Your task to perform on an android device: Clear the cart on target.com. Image 0: 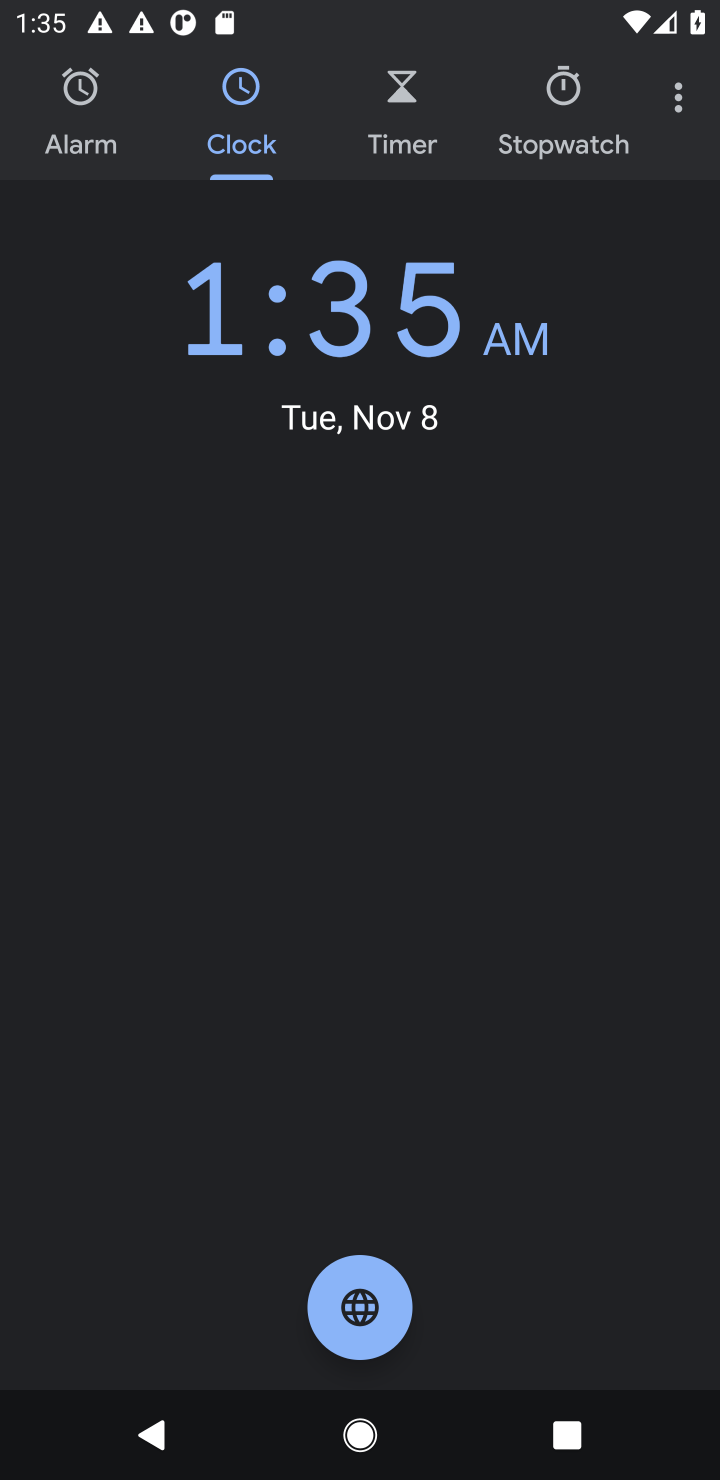
Step 0: press home button
Your task to perform on an android device: Clear the cart on target.com. Image 1: 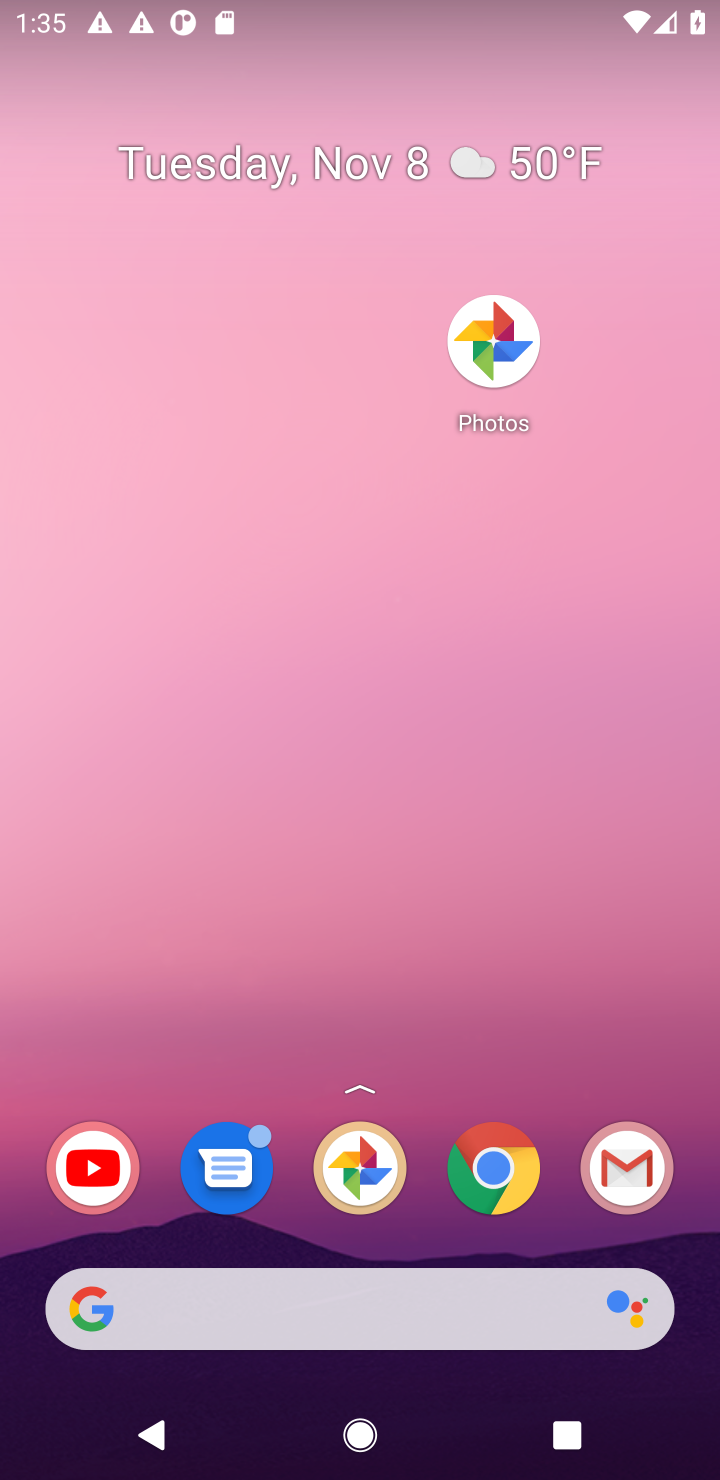
Step 1: drag from (462, 1153) to (412, 101)
Your task to perform on an android device: Clear the cart on target.com. Image 2: 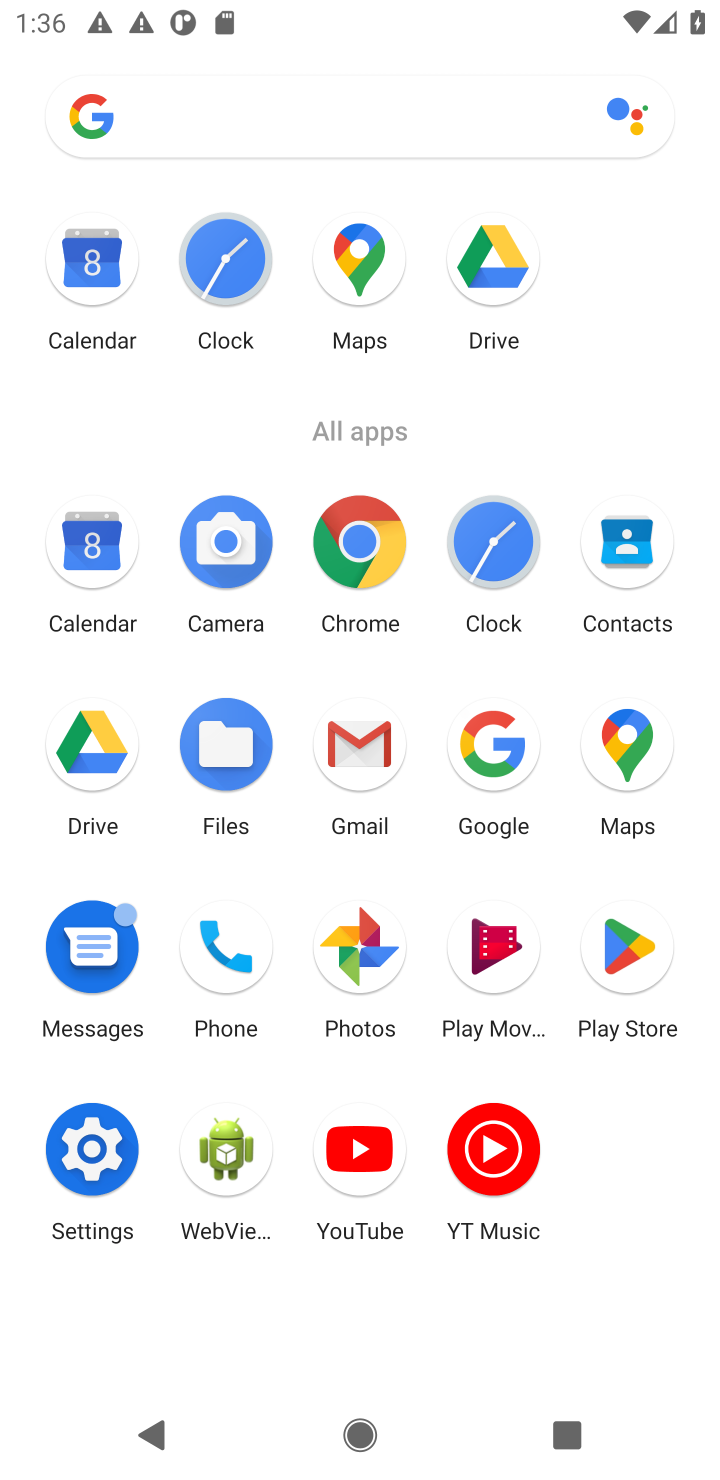
Step 2: click (358, 531)
Your task to perform on an android device: Clear the cart on target.com. Image 3: 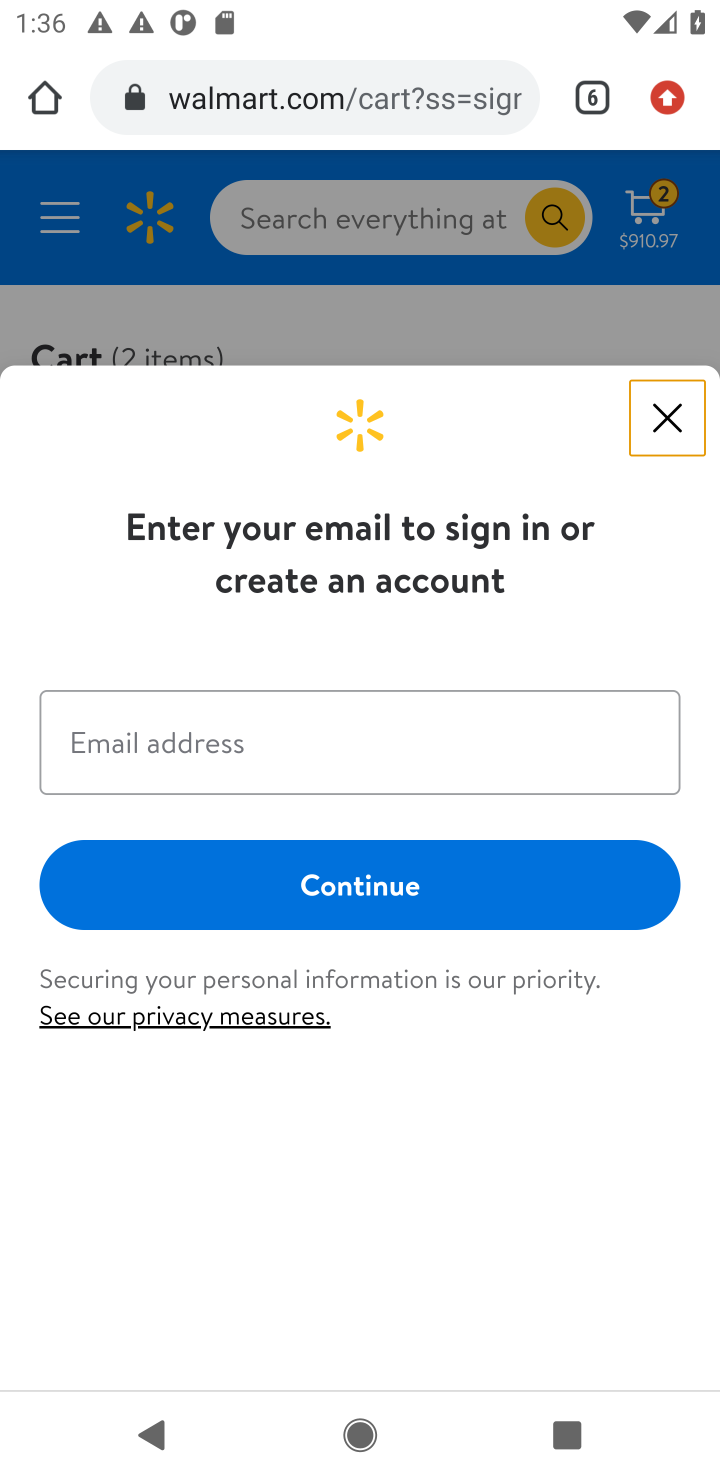
Step 3: click (395, 120)
Your task to perform on an android device: Clear the cart on target.com. Image 4: 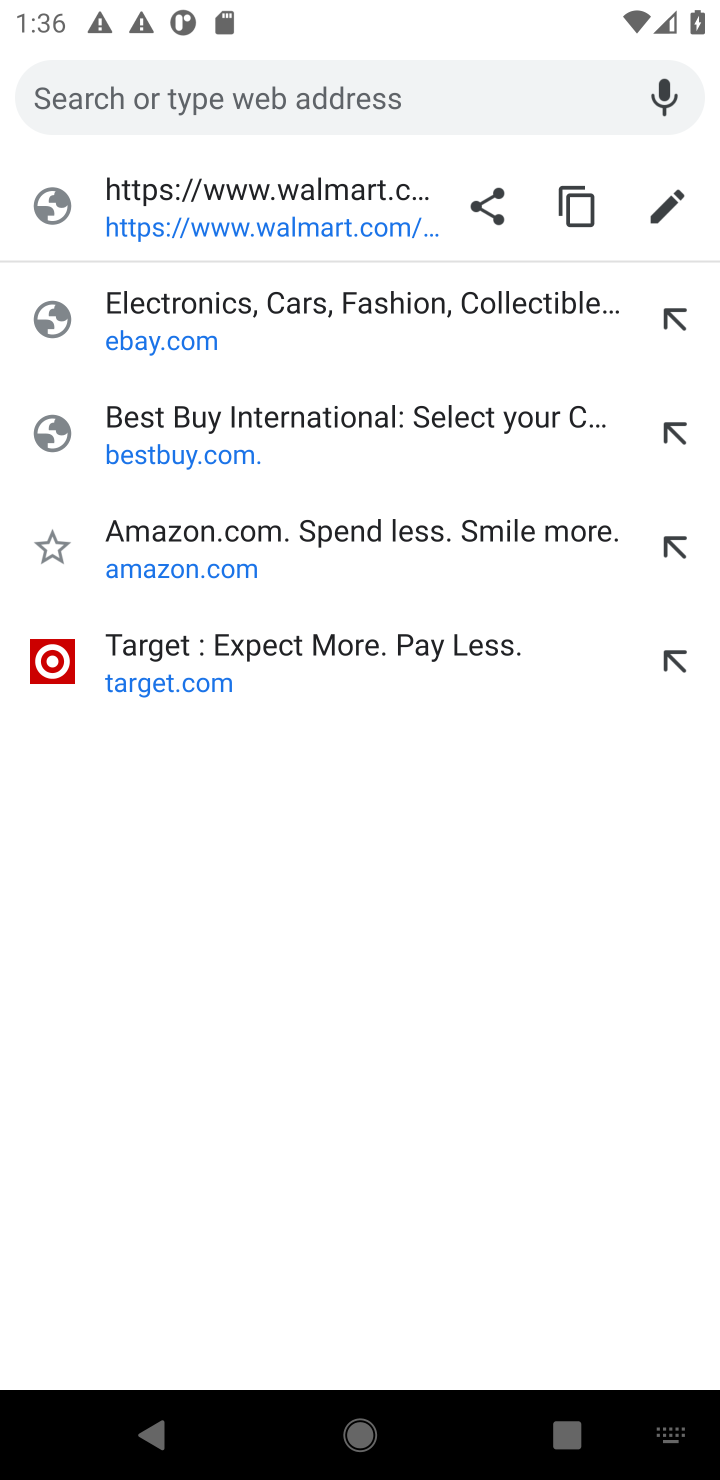
Step 4: type " target.com."
Your task to perform on an android device: Clear the cart on target.com. Image 5: 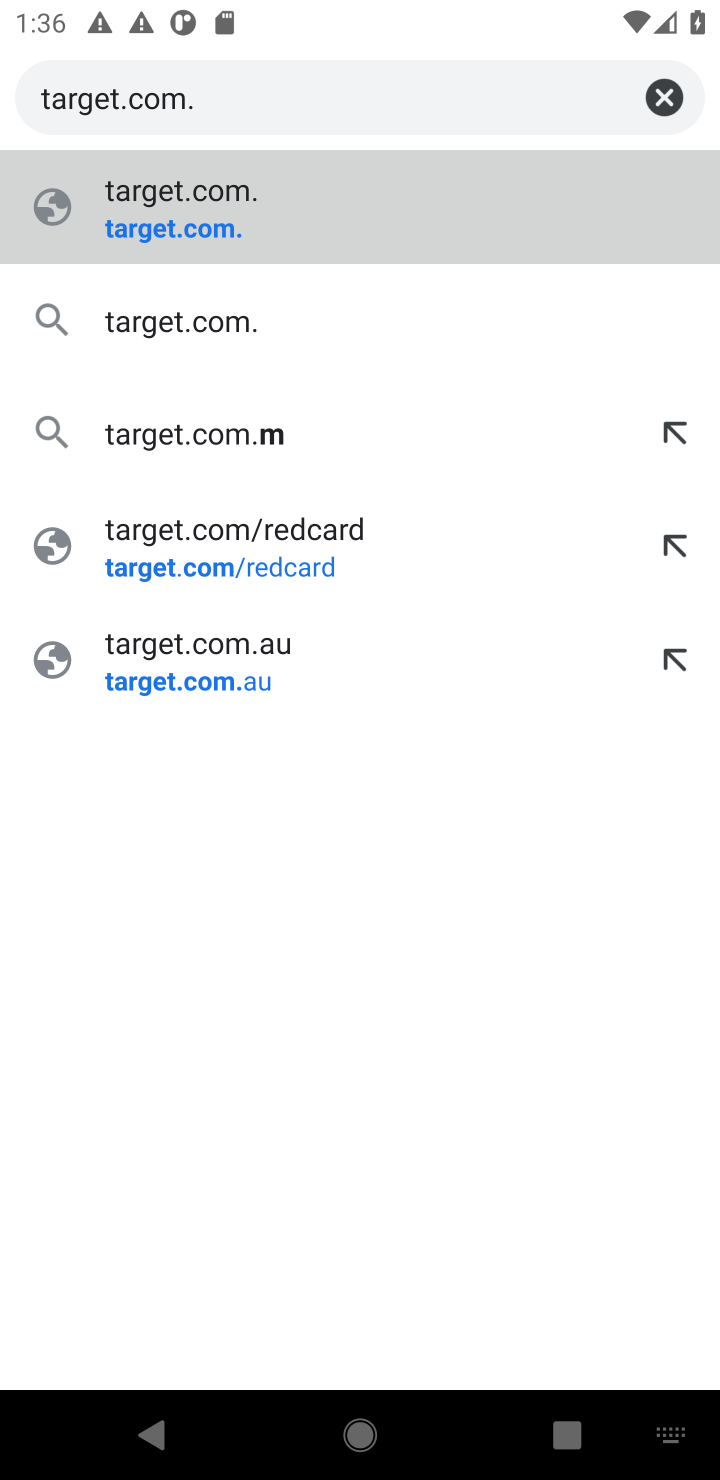
Step 5: press enter
Your task to perform on an android device: Clear the cart on target.com. Image 6: 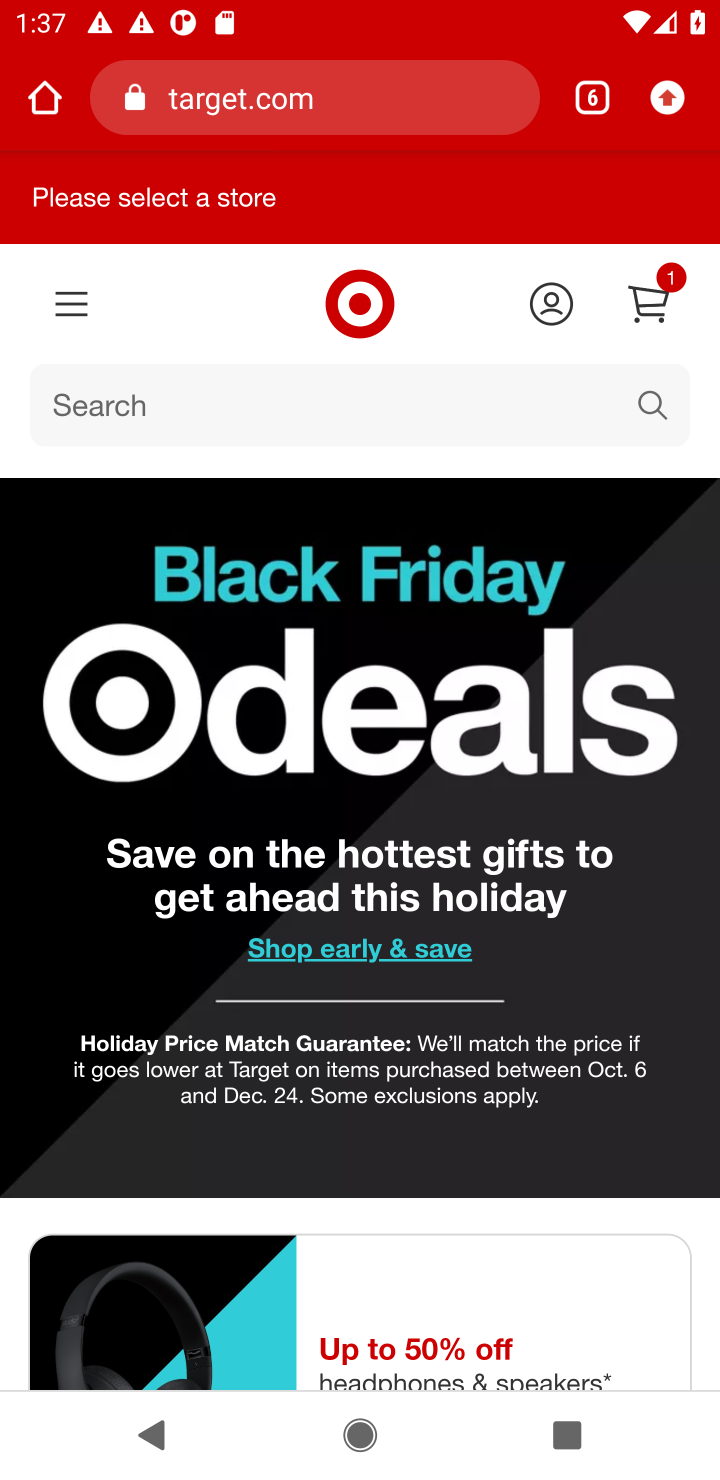
Step 6: click (137, 415)
Your task to perform on an android device: Clear the cart on target.com. Image 7: 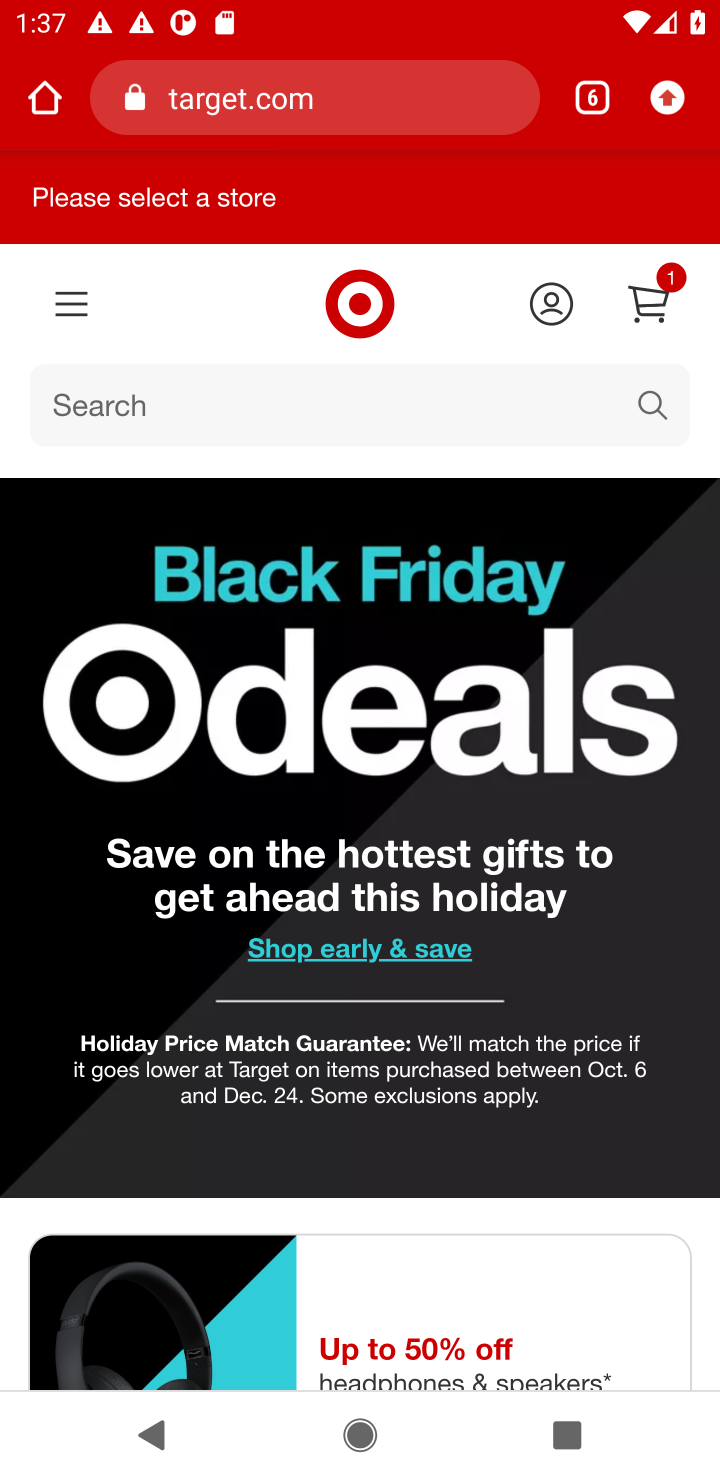
Step 7: click (670, 308)
Your task to perform on an android device: Clear the cart on target.com. Image 8: 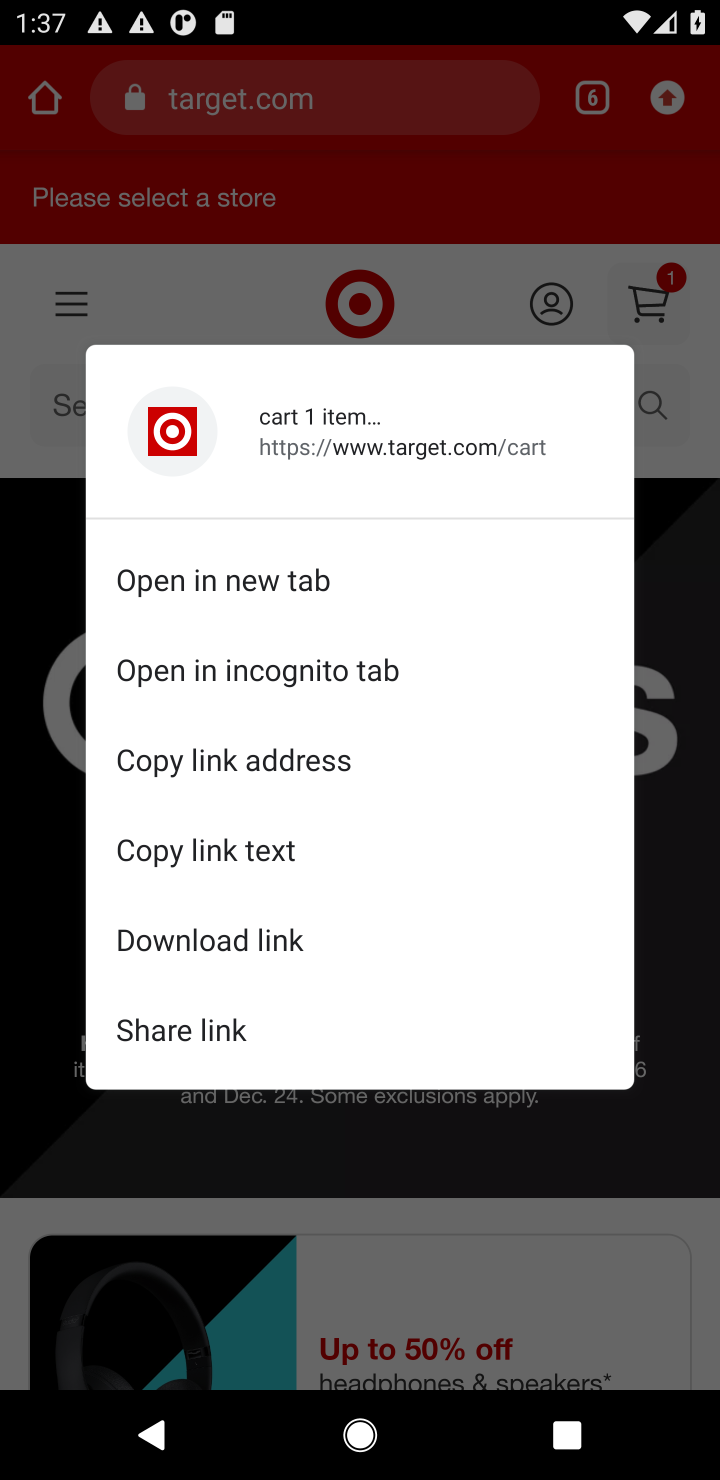
Step 8: click (311, 583)
Your task to perform on an android device: Clear the cart on target.com. Image 9: 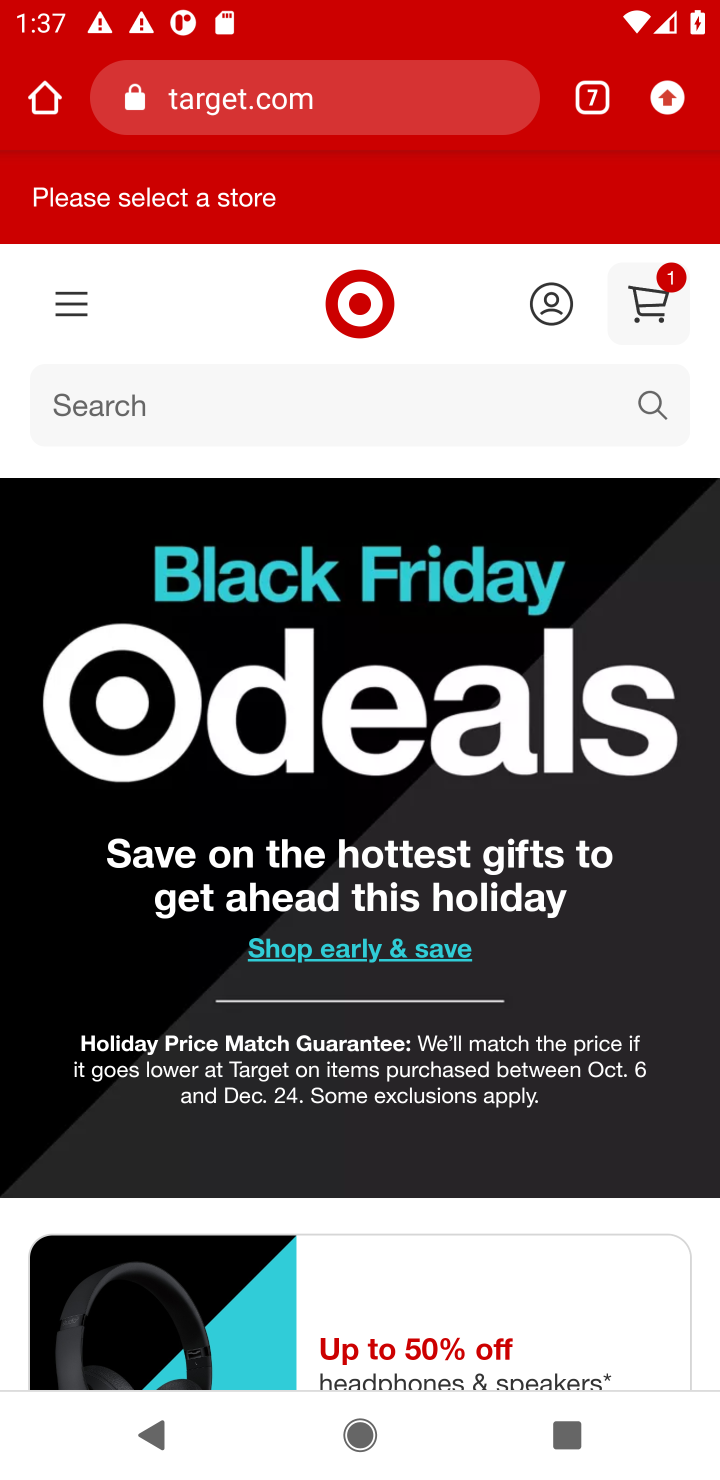
Step 9: click (666, 294)
Your task to perform on an android device: Clear the cart on target.com. Image 10: 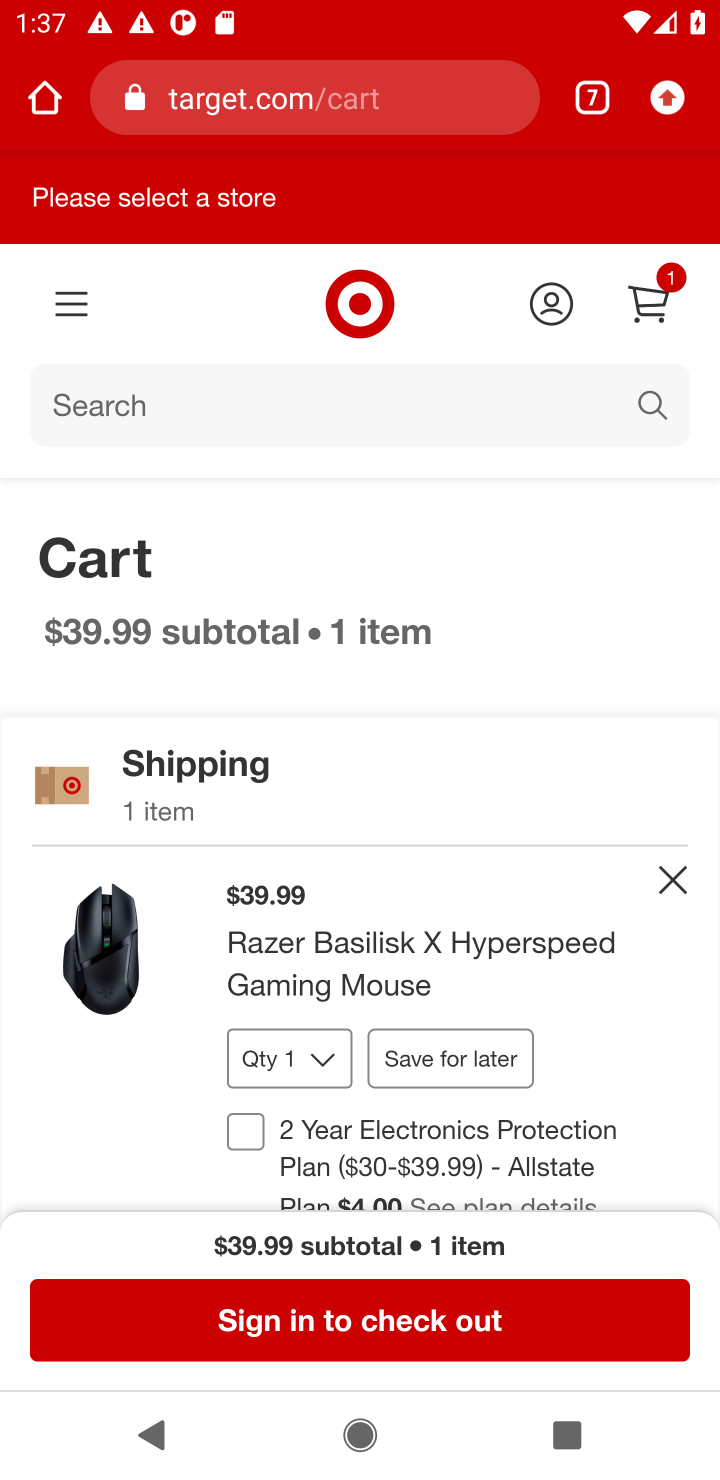
Step 10: click (432, 1315)
Your task to perform on an android device: Clear the cart on target.com. Image 11: 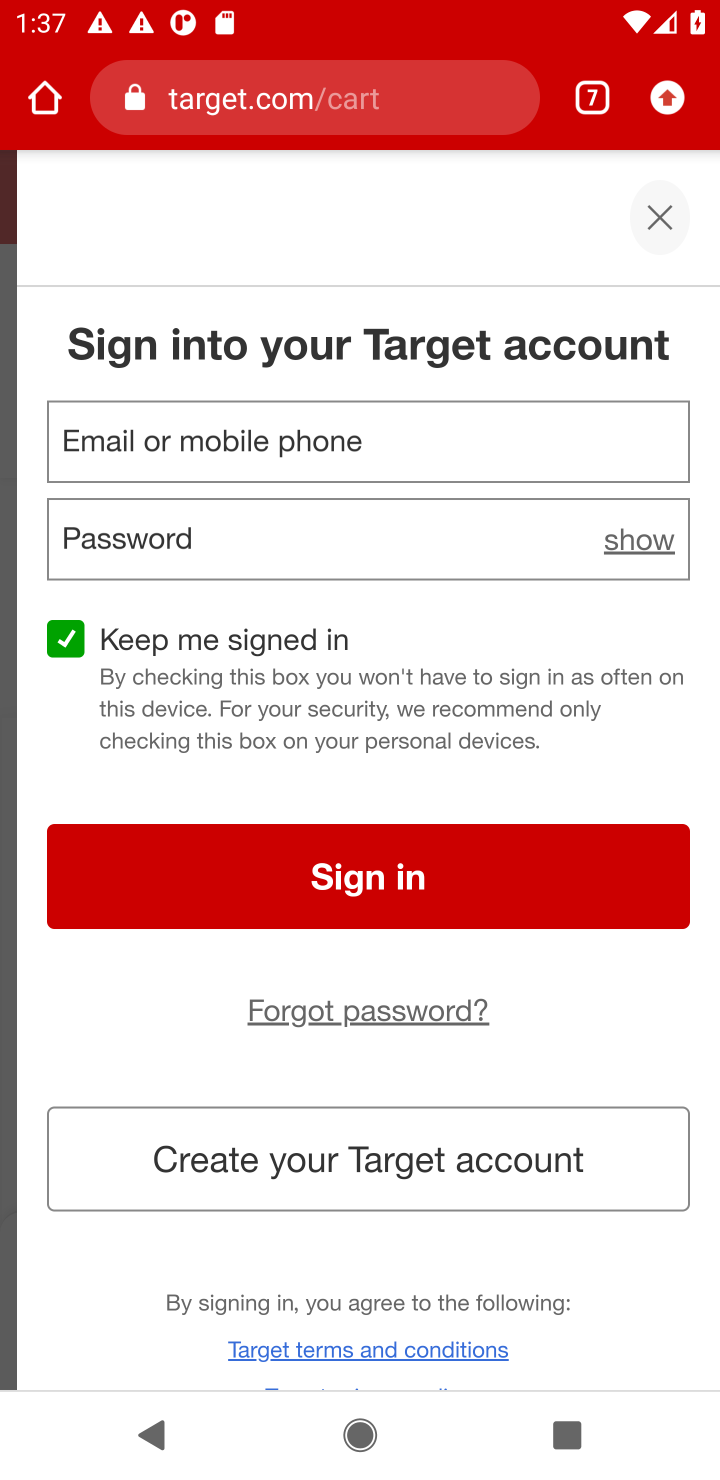
Step 11: task complete